Your task to perform on an android device: change notification settings in the gmail app Image 0: 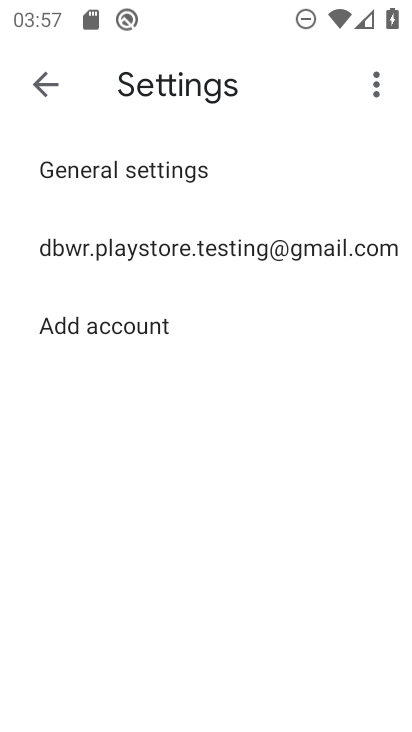
Step 0: click (355, 258)
Your task to perform on an android device: change notification settings in the gmail app Image 1: 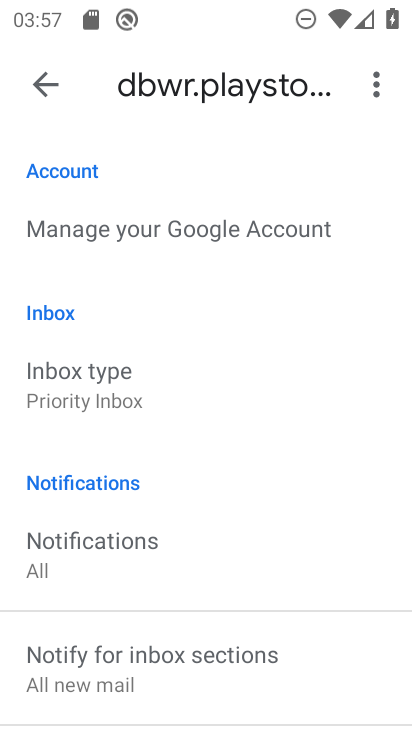
Step 1: drag from (292, 503) to (303, 411)
Your task to perform on an android device: change notification settings in the gmail app Image 2: 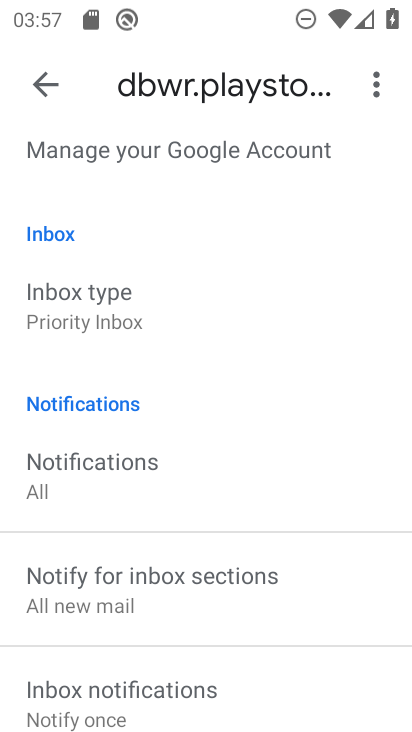
Step 2: drag from (315, 524) to (316, 439)
Your task to perform on an android device: change notification settings in the gmail app Image 3: 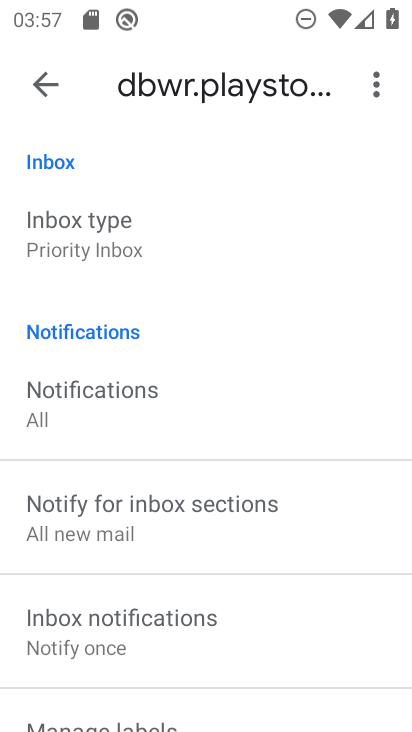
Step 3: click (166, 422)
Your task to perform on an android device: change notification settings in the gmail app Image 4: 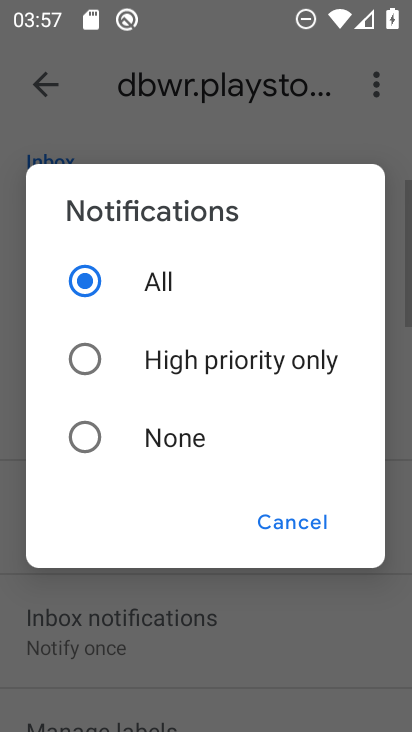
Step 4: click (190, 385)
Your task to perform on an android device: change notification settings in the gmail app Image 5: 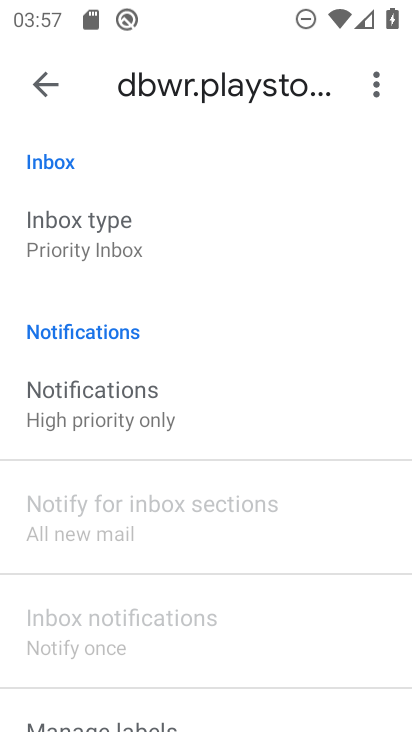
Step 5: task complete